Your task to perform on an android device: Turn off the flashlight Image 0: 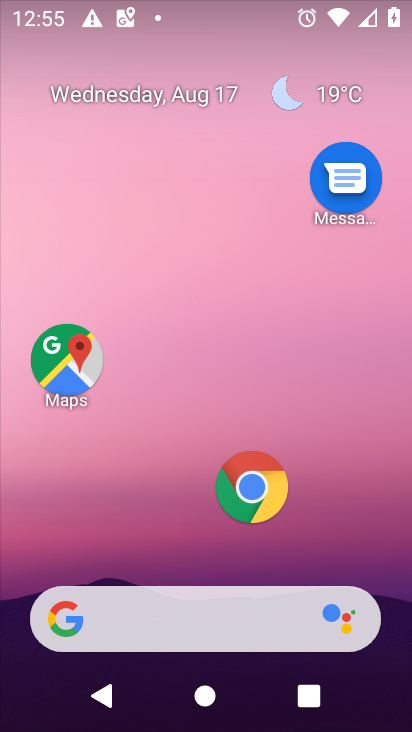
Step 0: drag from (187, 493) to (270, 15)
Your task to perform on an android device: Turn off the flashlight Image 1: 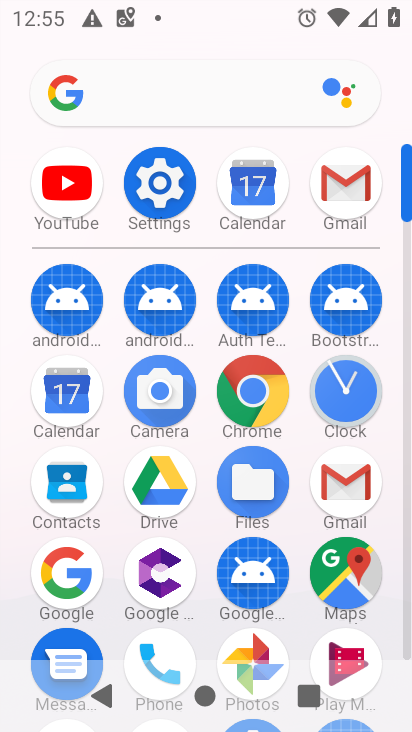
Step 1: click (166, 165)
Your task to perform on an android device: Turn off the flashlight Image 2: 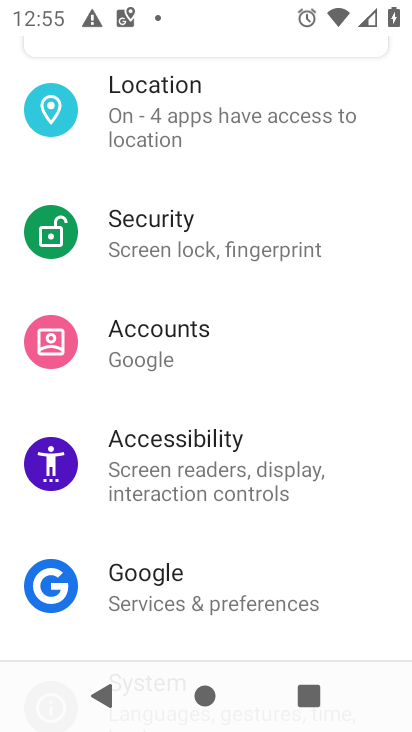
Step 2: drag from (274, 146) to (224, 668)
Your task to perform on an android device: Turn off the flashlight Image 3: 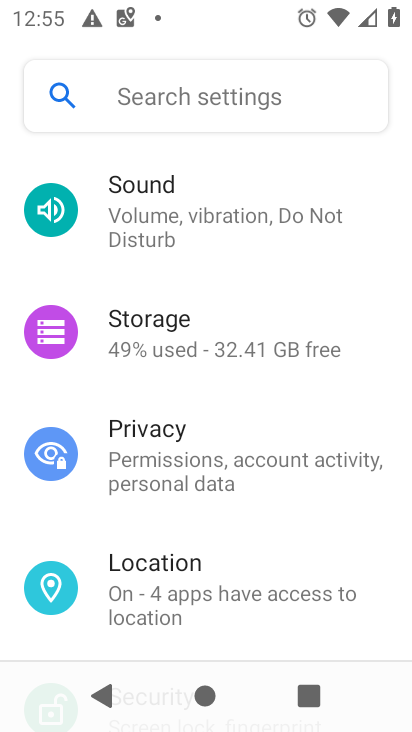
Step 3: click (191, 103)
Your task to perform on an android device: Turn off the flashlight Image 4: 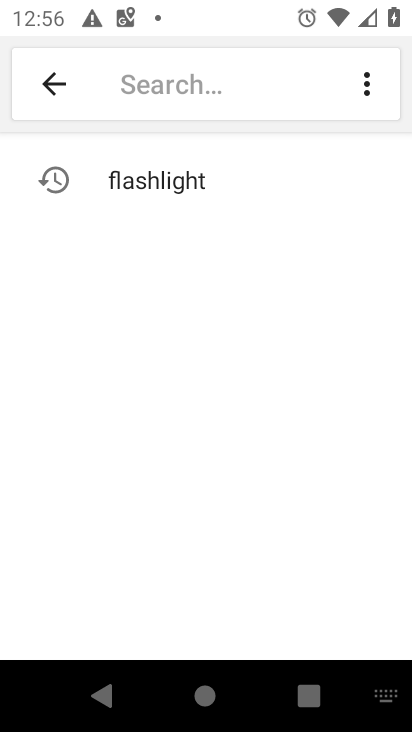
Step 4: type "flashlight"
Your task to perform on an android device: Turn off the flashlight Image 5: 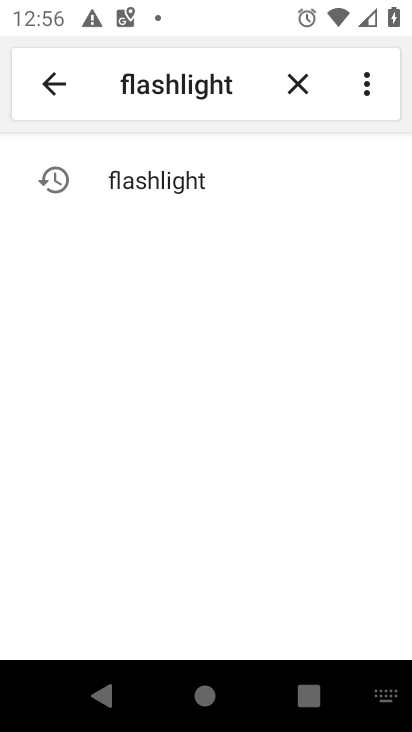
Step 5: click (163, 176)
Your task to perform on an android device: Turn off the flashlight Image 6: 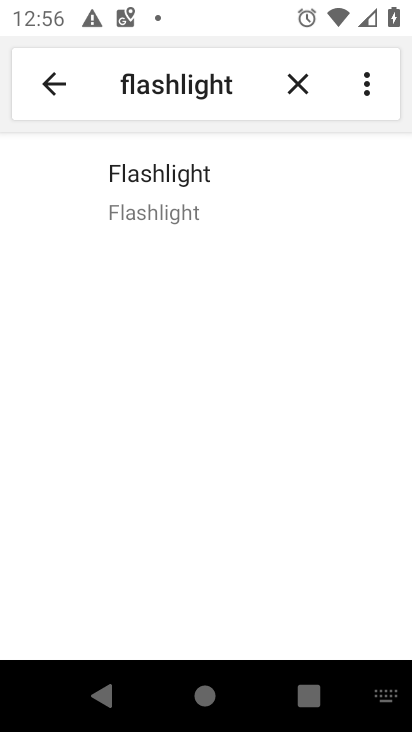
Step 6: click (212, 178)
Your task to perform on an android device: Turn off the flashlight Image 7: 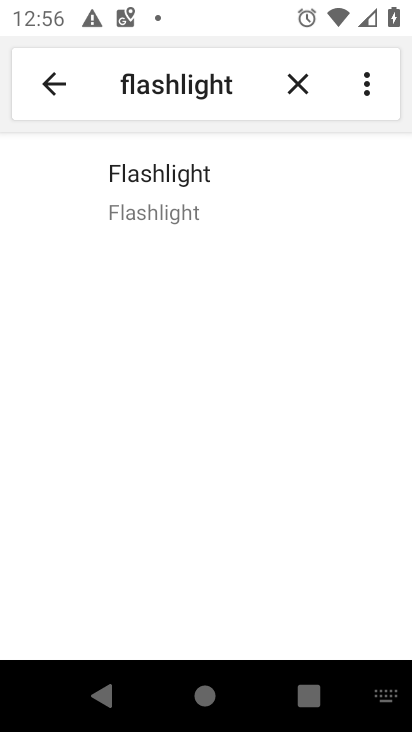
Step 7: click (202, 171)
Your task to perform on an android device: Turn off the flashlight Image 8: 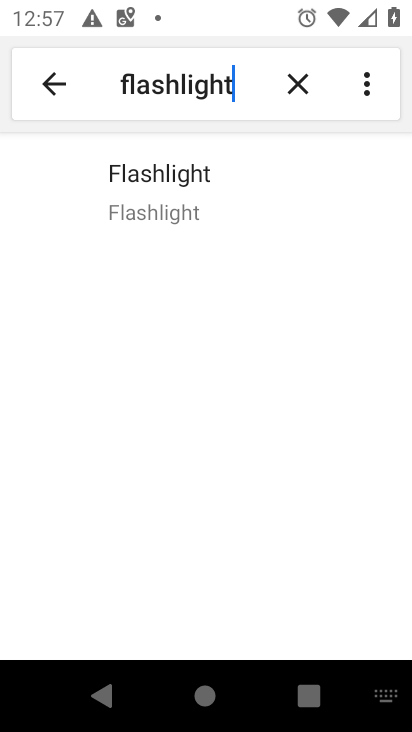
Step 8: task complete